Your task to perform on an android device: allow cookies in the chrome app Image 0: 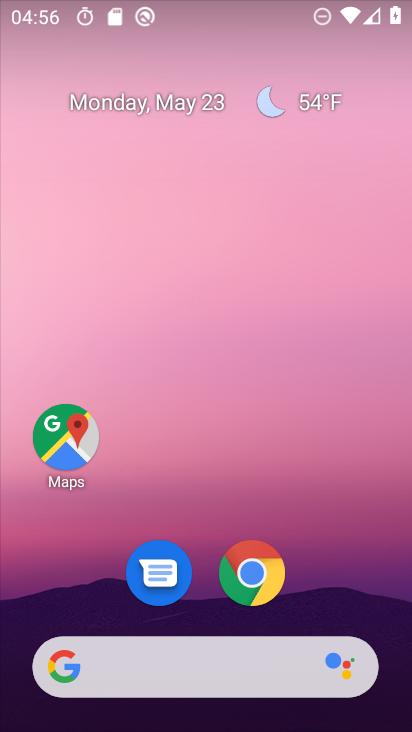
Step 0: click (259, 571)
Your task to perform on an android device: allow cookies in the chrome app Image 1: 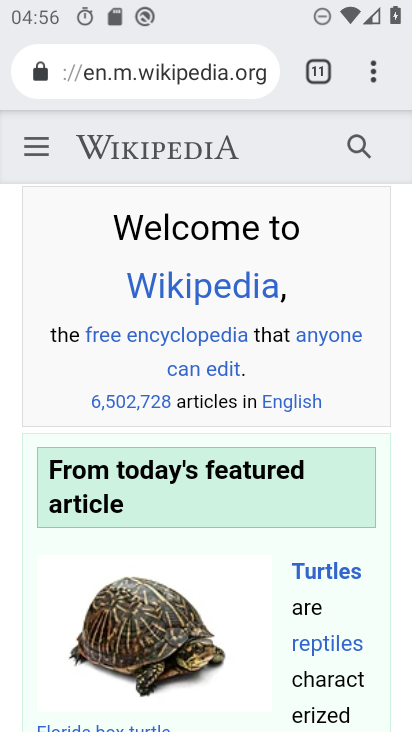
Step 1: click (383, 76)
Your task to perform on an android device: allow cookies in the chrome app Image 2: 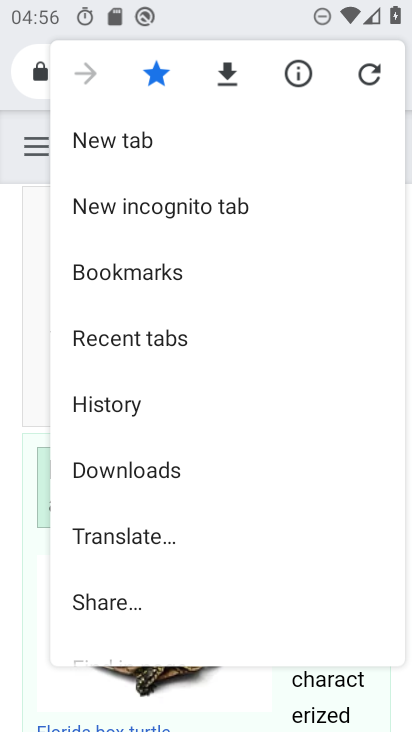
Step 2: drag from (238, 554) to (207, 171)
Your task to perform on an android device: allow cookies in the chrome app Image 3: 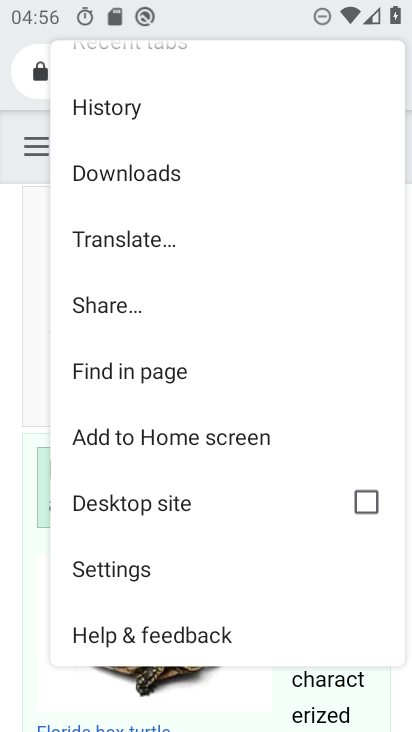
Step 3: click (119, 573)
Your task to perform on an android device: allow cookies in the chrome app Image 4: 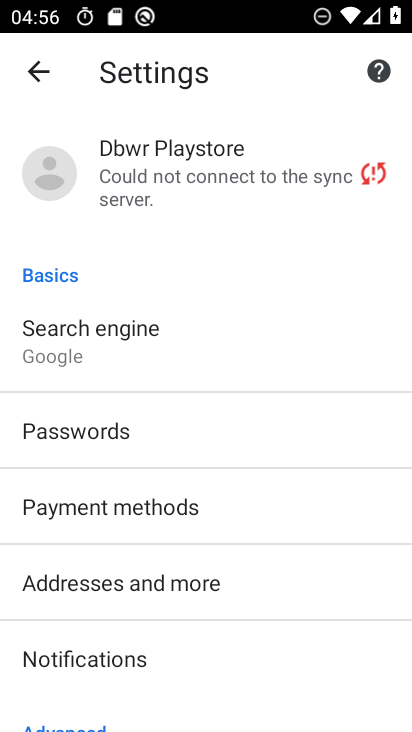
Step 4: drag from (288, 625) to (267, 183)
Your task to perform on an android device: allow cookies in the chrome app Image 5: 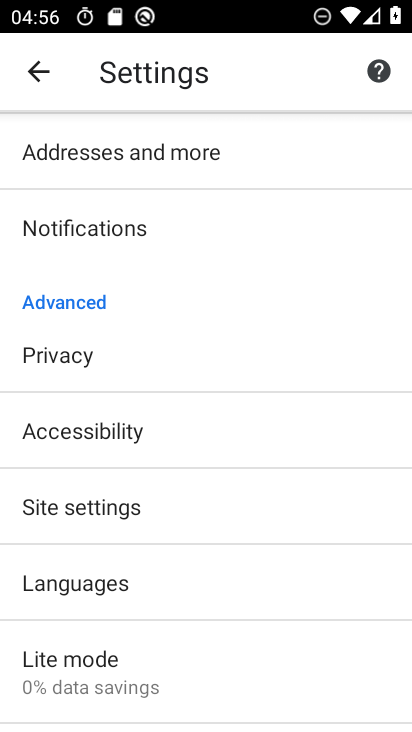
Step 5: click (154, 500)
Your task to perform on an android device: allow cookies in the chrome app Image 6: 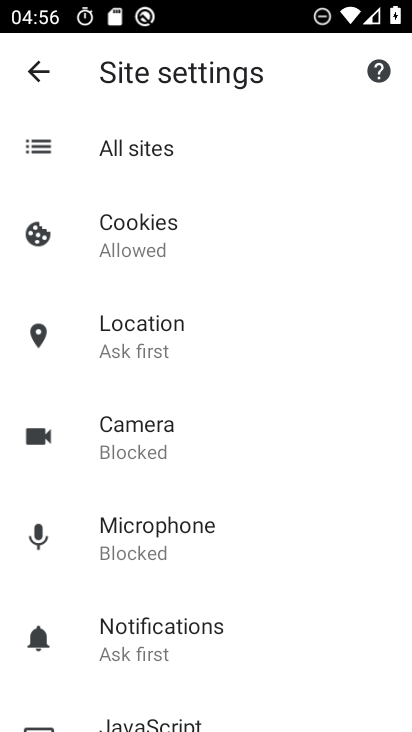
Step 6: click (159, 240)
Your task to perform on an android device: allow cookies in the chrome app Image 7: 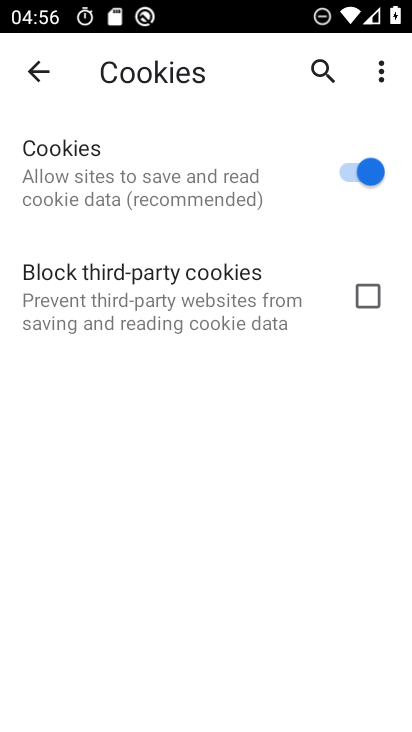
Step 7: task complete